Your task to perform on an android device: Go to wifi settings Image 0: 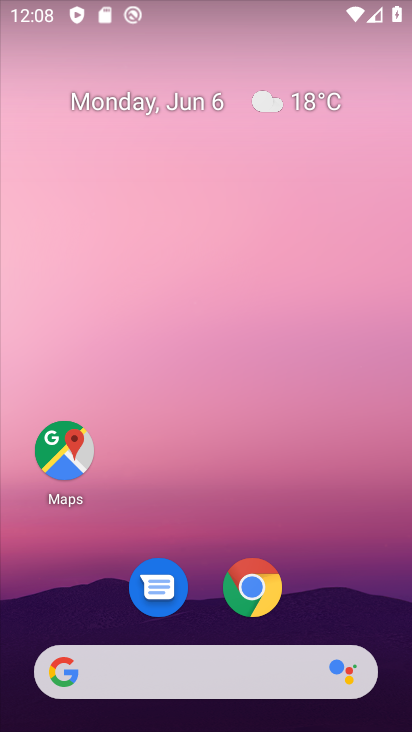
Step 0: drag from (359, 587) to (348, 92)
Your task to perform on an android device: Go to wifi settings Image 1: 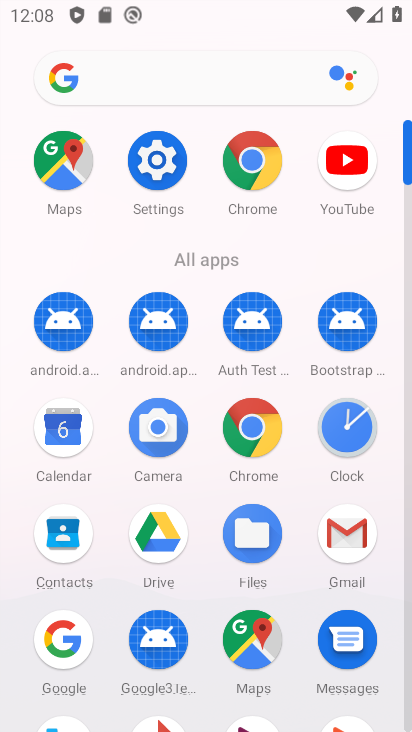
Step 1: click (173, 165)
Your task to perform on an android device: Go to wifi settings Image 2: 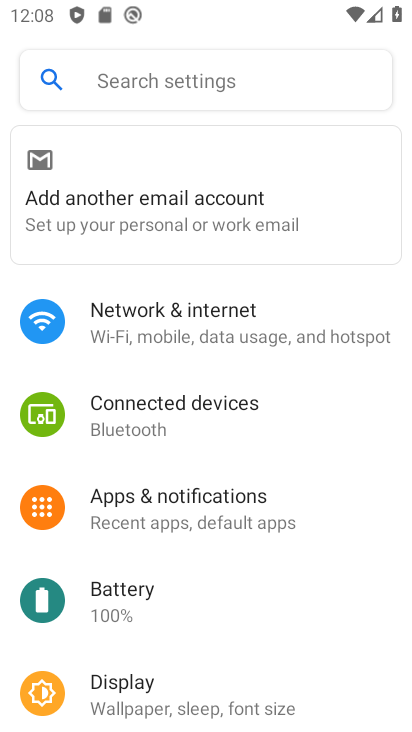
Step 2: click (230, 308)
Your task to perform on an android device: Go to wifi settings Image 3: 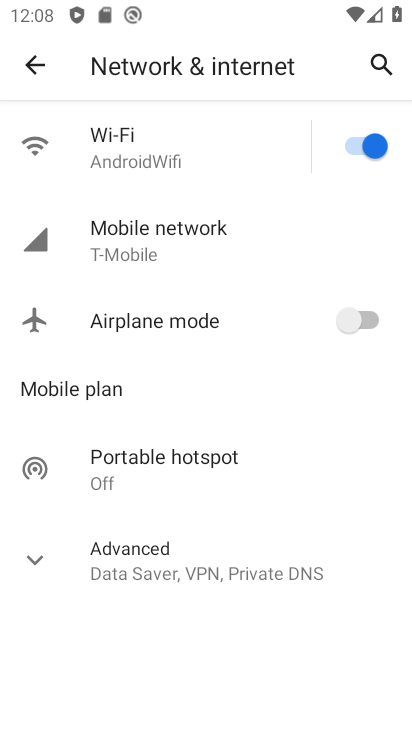
Step 3: click (273, 152)
Your task to perform on an android device: Go to wifi settings Image 4: 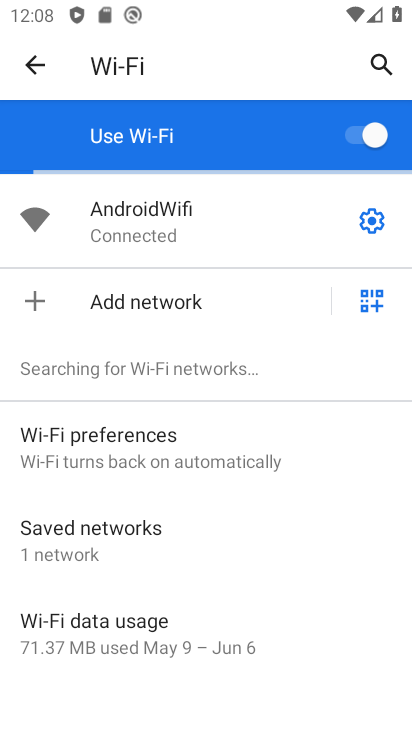
Step 4: click (383, 221)
Your task to perform on an android device: Go to wifi settings Image 5: 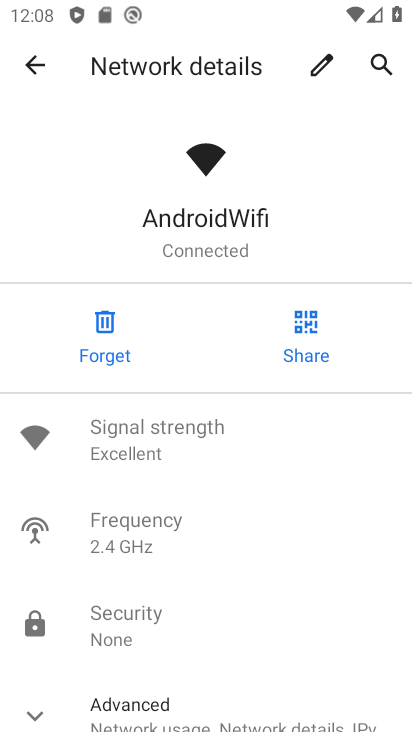
Step 5: task complete